Your task to perform on an android device: open app "Adobe Acrobat Reader: Edit PDF" (install if not already installed) Image 0: 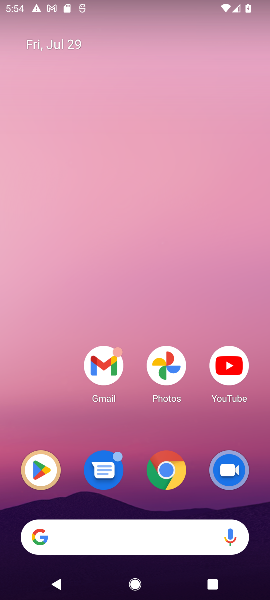
Step 0: drag from (194, 427) to (219, 60)
Your task to perform on an android device: open app "Adobe Acrobat Reader: Edit PDF" (install if not already installed) Image 1: 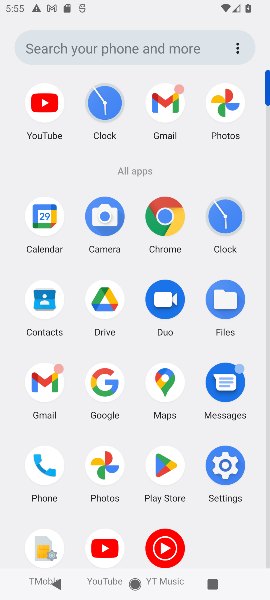
Step 1: click (173, 474)
Your task to perform on an android device: open app "Adobe Acrobat Reader: Edit PDF" (install if not already installed) Image 2: 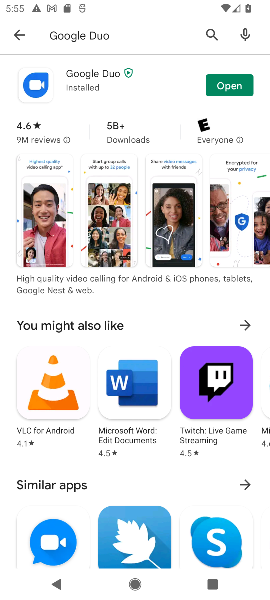
Step 2: click (120, 50)
Your task to perform on an android device: open app "Adobe Acrobat Reader: Edit PDF" (install if not already installed) Image 3: 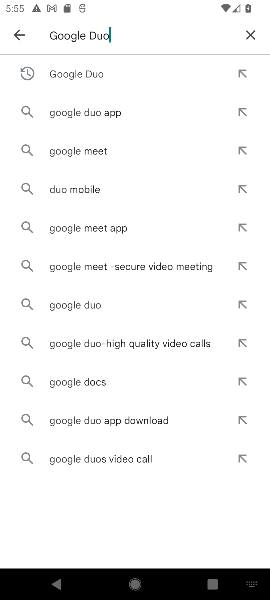
Step 3: click (248, 28)
Your task to perform on an android device: open app "Adobe Acrobat Reader: Edit PDF" (install if not already installed) Image 4: 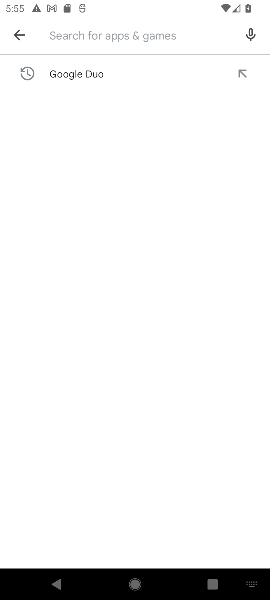
Step 4: type "Adobe Acrobat Reader"
Your task to perform on an android device: open app "Adobe Acrobat Reader: Edit PDF" (install if not already installed) Image 5: 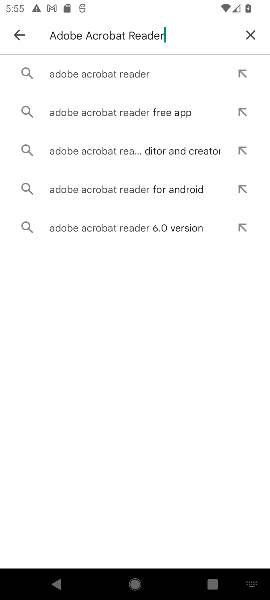
Step 5: press enter
Your task to perform on an android device: open app "Adobe Acrobat Reader: Edit PDF" (install if not already installed) Image 6: 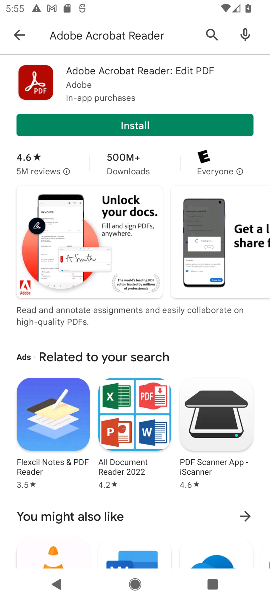
Step 6: click (121, 125)
Your task to perform on an android device: open app "Adobe Acrobat Reader: Edit PDF" (install if not already installed) Image 7: 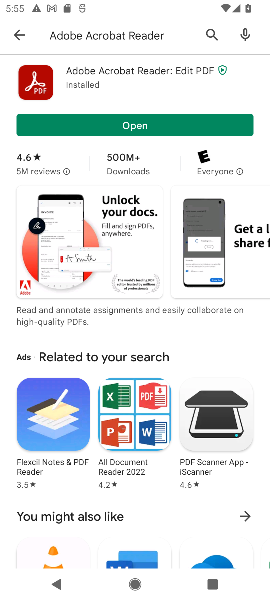
Step 7: click (88, 125)
Your task to perform on an android device: open app "Adobe Acrobat Reader: Edit PDF" (install if not already installed) Image 8: 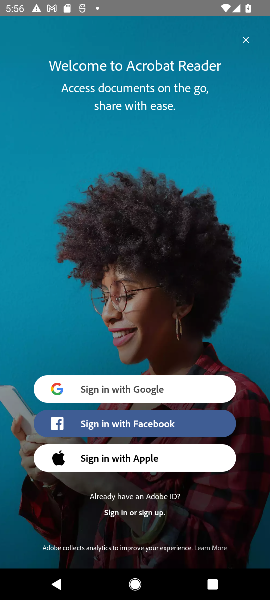
Step 8: task complete